Your task to perform on an android device: Find coffee shops on Maps Image 0: 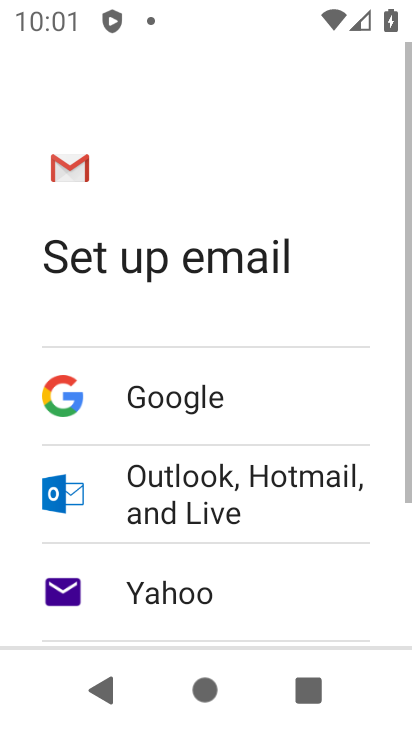
Step 0: press home button
Your task to perform on an android device: Find coffee shops on Maps Image 1: 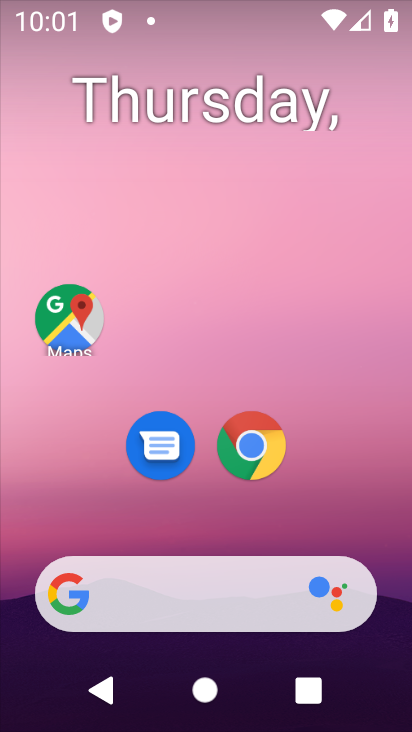
Step 1: click (85, 311)
Your task to perform on an android device: Find coffee shops on Maps Image 2: 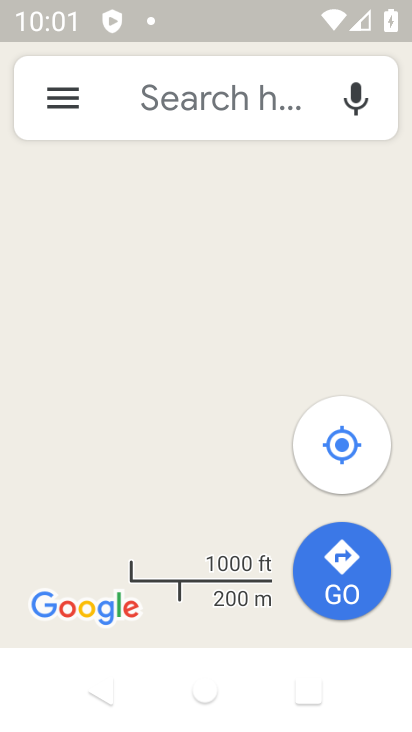
Step 2: click (233, 106)
Your task to perform on an android device: Find coffee shops on Maps Image 3: 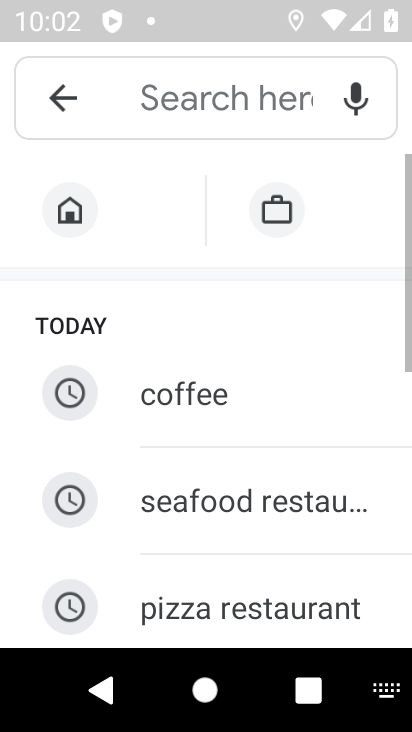
Step 3: type "coffee shops"
Your task to perform on an android device: Find coffee shops on Maps Image 4: 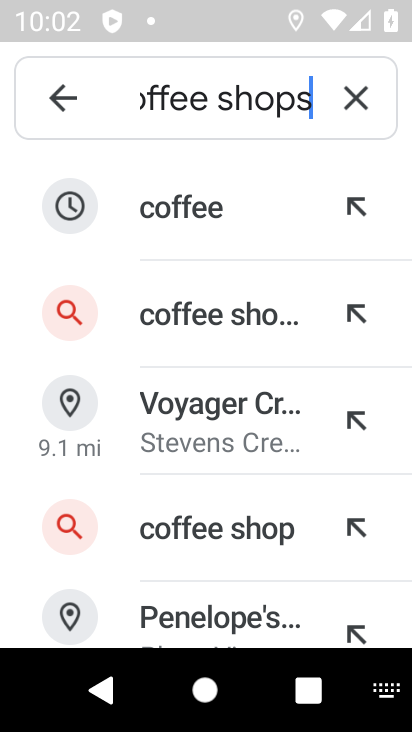
Step 4: click (218, 311)
Your task to perform on an android device: Find coffee shops on Maps Image 5: 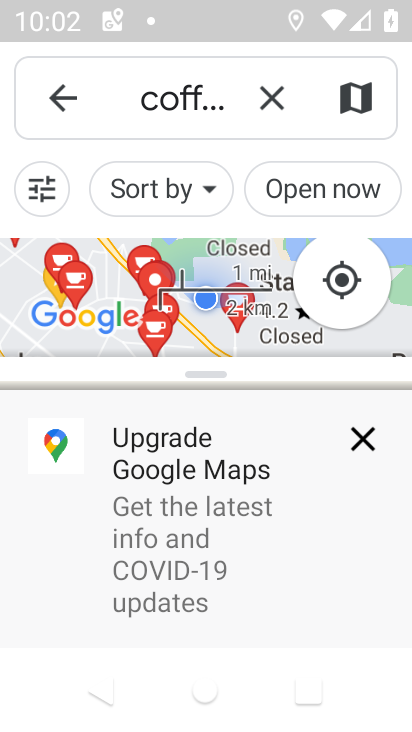
Step 5: click (356, 424)
Your task to perform on an android device: Find coffee shops on Maps Image 6: 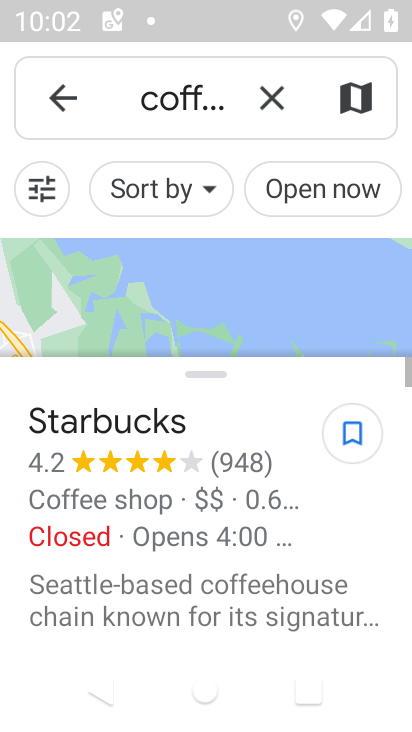
Step 6: task complete